Your task to perform on an android device: open app "Instagram" Image 0: 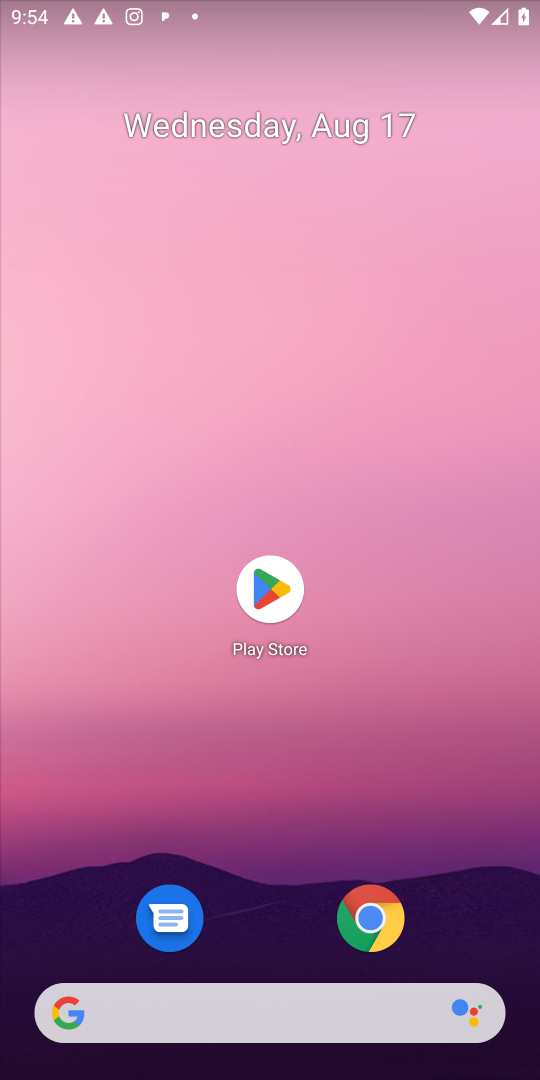
Step 0: click (276, 585)
Your task to perform on an android device: open app "Instagram" Image 1: 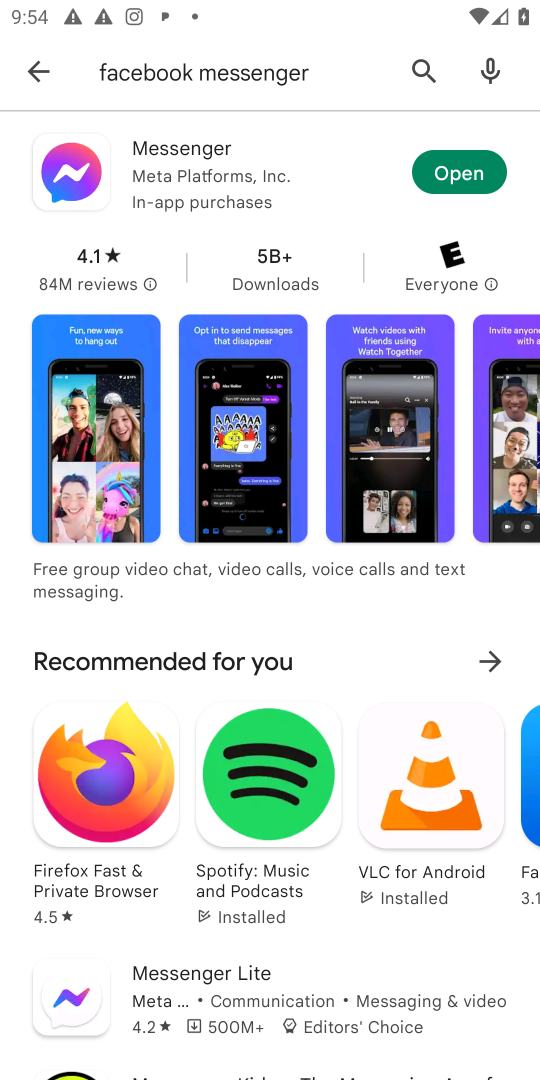
Step 1: click (424, 71)
Your task to perform on an android device: open app "Instagram" Image 2: 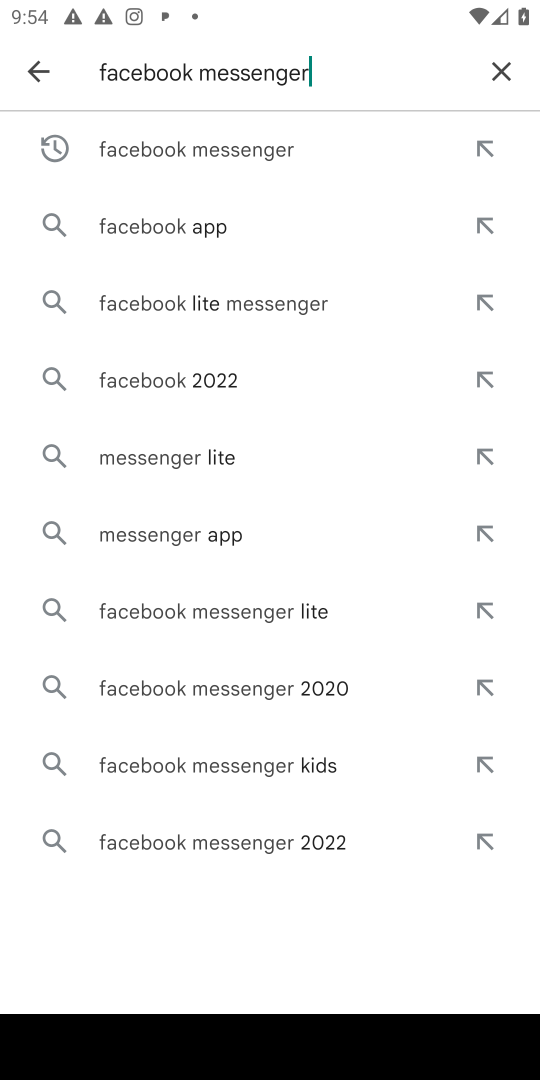
Step 2: click (497, 75)
Your task to perform on an android device: open app "Instagram" Image 3: 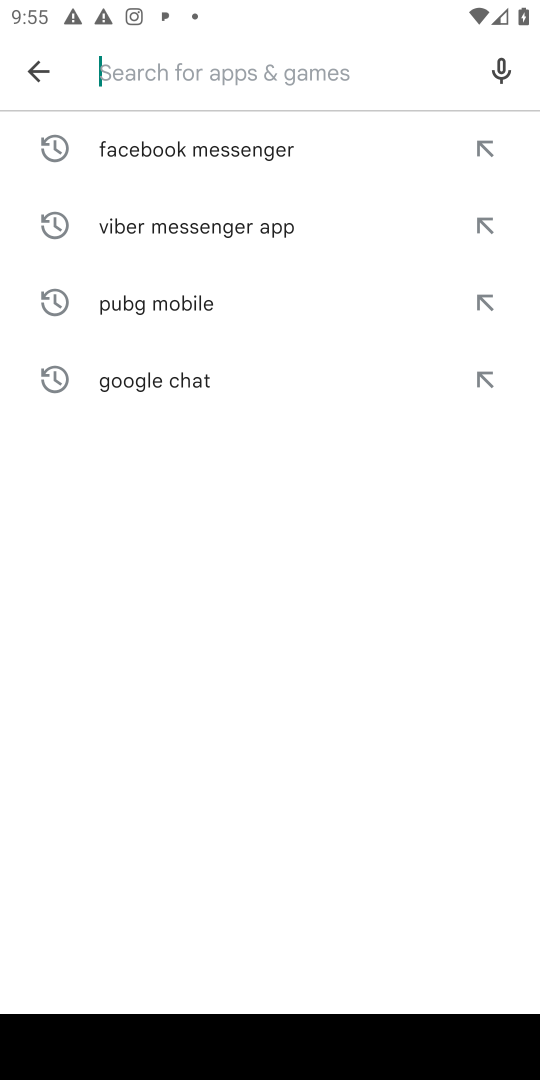
Step 3: type "Instagram"
Your task to perform on an android device: open app "Instagram" Image 4: 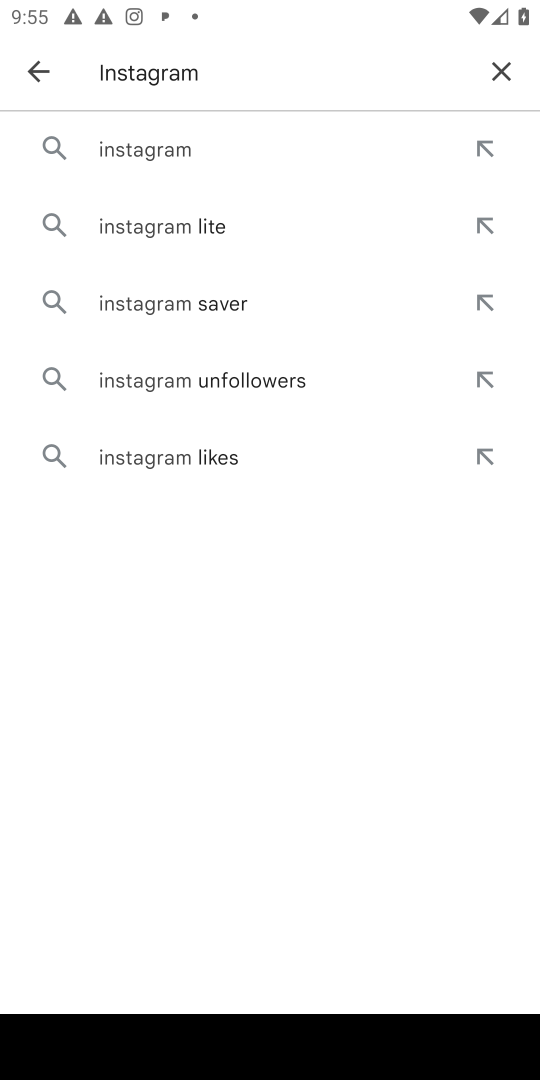
Step 4: click (111, 147)
Your task to perform on an android device: open app "Instagram" Image 5: 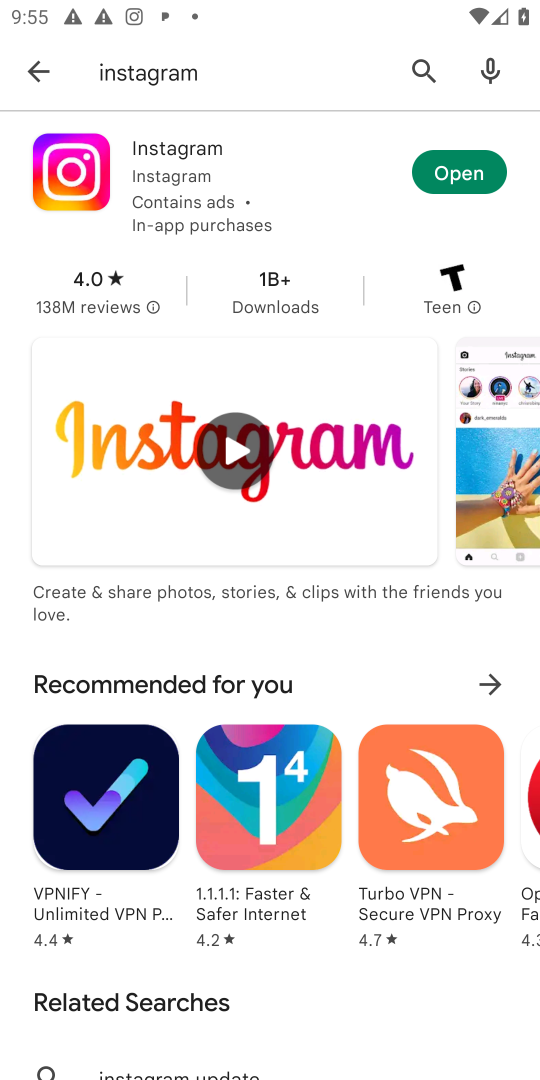
Step 5: click (479, 168)
Your task to perform on an android device: open app "Instagram" Image 6: 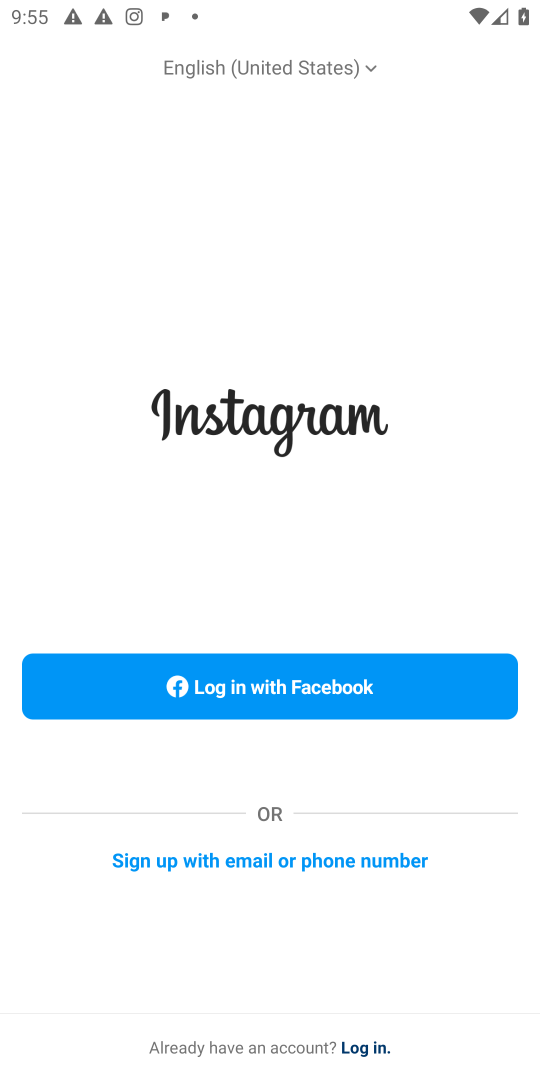
Step 6: task complete